Your task to perform on an android device: turn smart compose on in the gmail app Image 0: 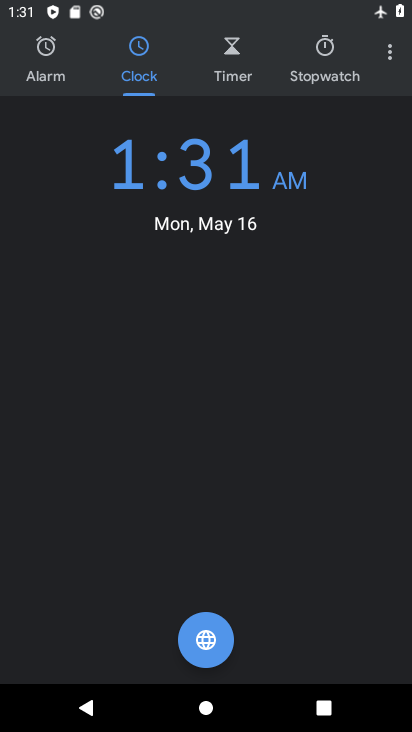
Step 0: press home button
Your task to perform on an android device: turn smart compose on in the gmail app Image 1: 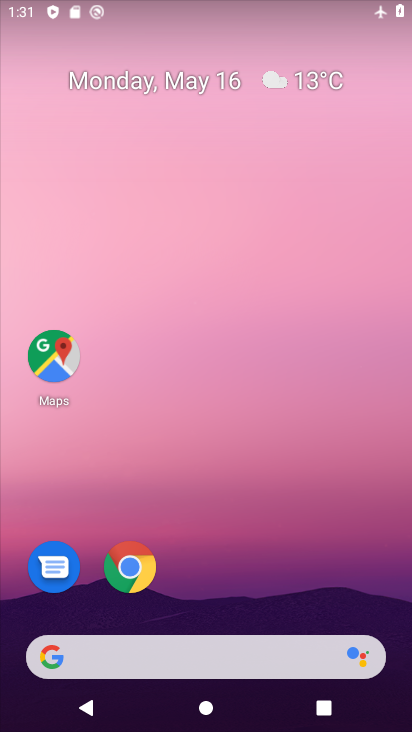
Step 1: drag from (237, 567) to (169, 211)
Your task to perform on an android device: turn smart compose on in the gmail app Image 2: 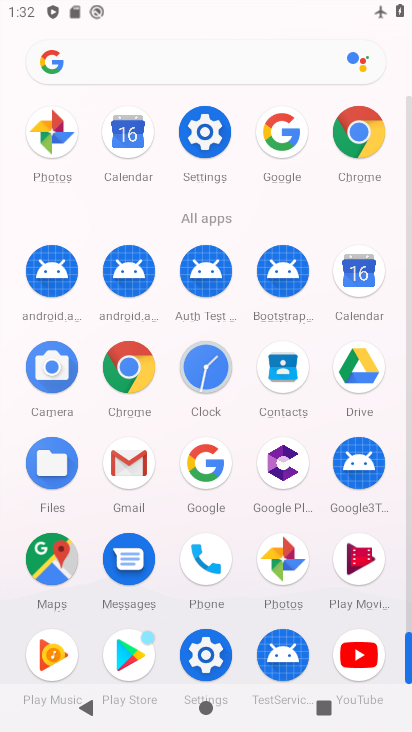
Step 2: click (131, 467)
Your task to perform on an android device: turn smart compose on in the gmail app Image 3: 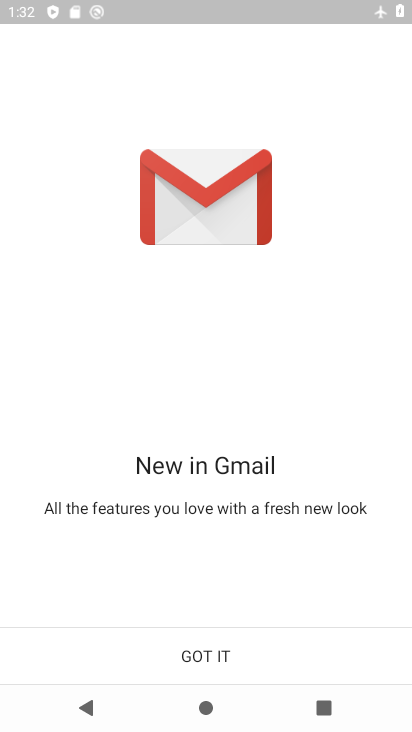
Step 3: click (209, 654)
Your task to perform on an android device: turn smart compose on in the gmail app Image 4: 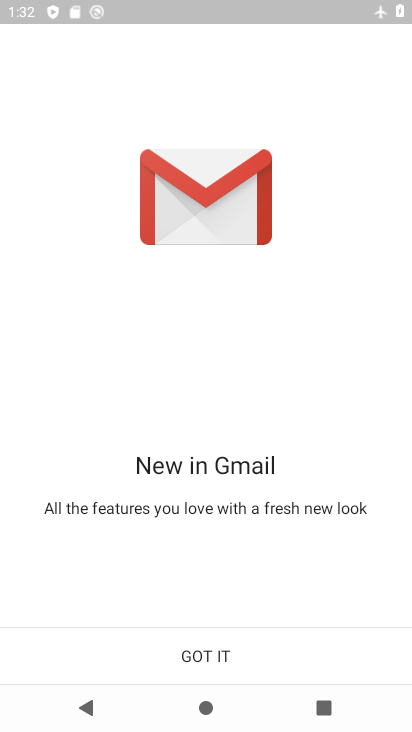
Step 4: click (209, 654)
Your task to perform on an android device: turn smart compose on in the gmail app Image 5: 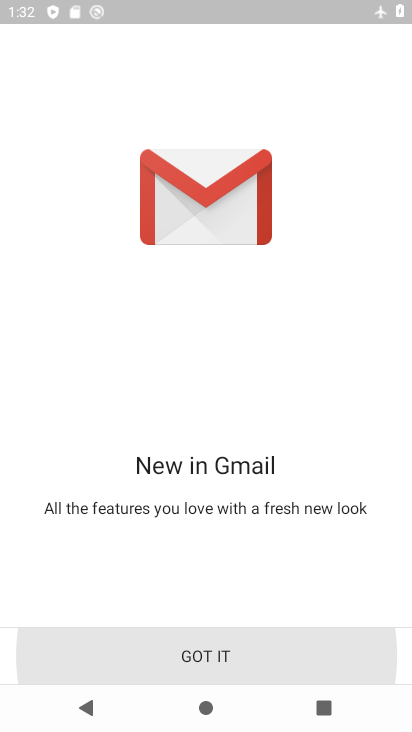
Step 5: click (209, 654)
Your task to perform on an android device: turn smart compose on in the gmail app Image 6: 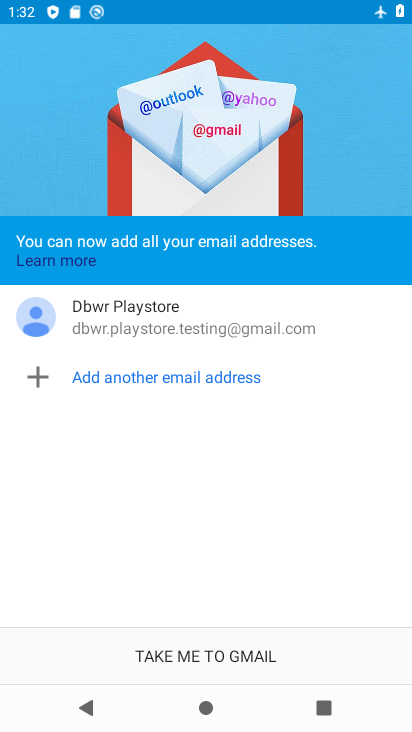
Step 6: click (209, 654)
Your task to perform on an android device: turn smart compose on in the gmail app Image 7: 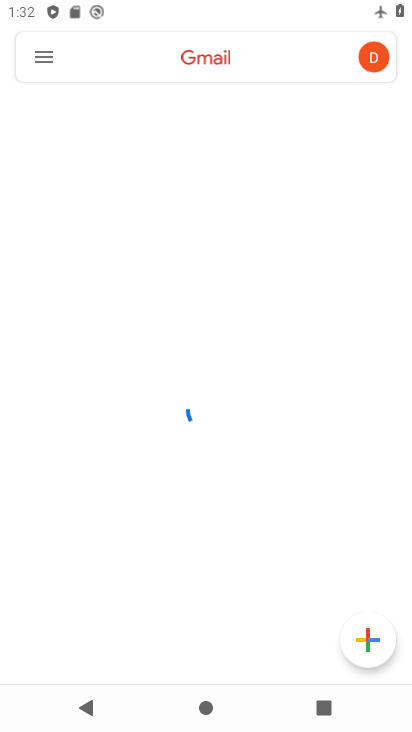
Step 7: click (35, 48)
Your task to perform on an android device: turn smart compose on in the gmail app Image 8: 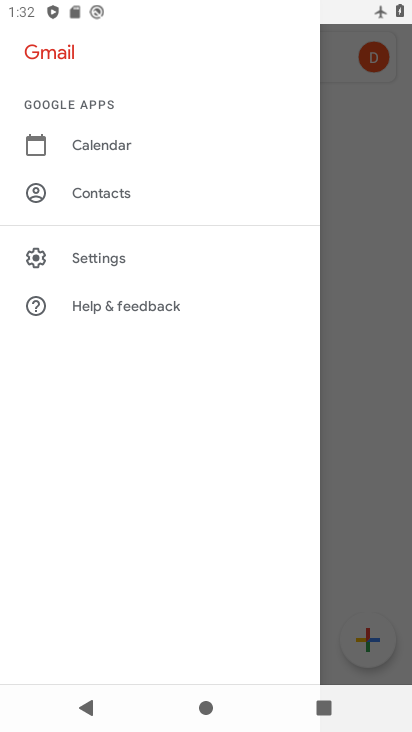
Step 8: click (104, 255)
Your task to perform on an android device: turn smart compose on in the gmail app Image 9: 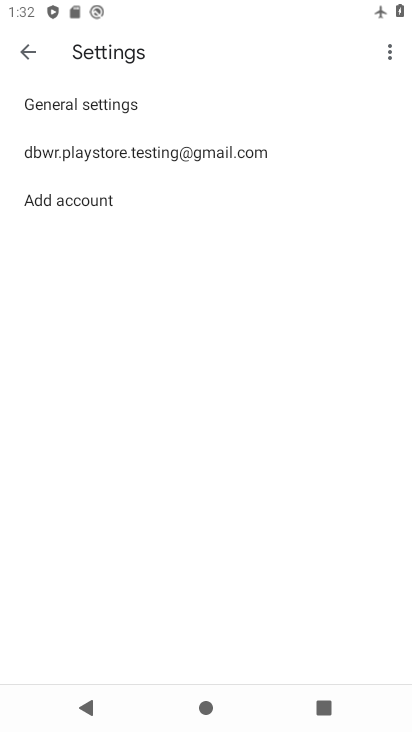
Step 9: click (92, 143)
Your task to perform on an android device: turn smart compose on in the gmail app Image 10: 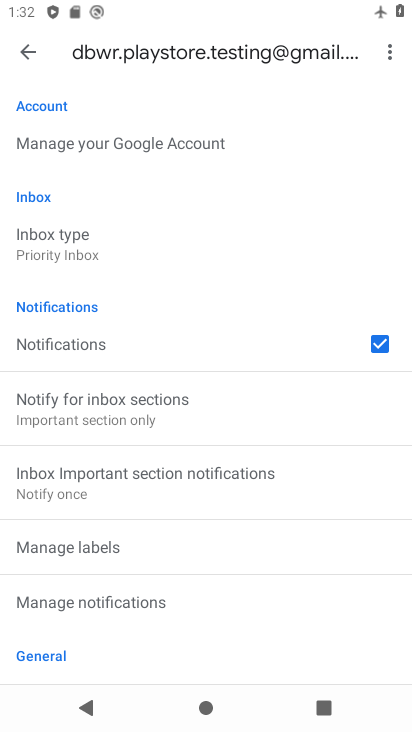
Step 10: task complete